Your task to perform on an android device: Open Amazon Image 0: 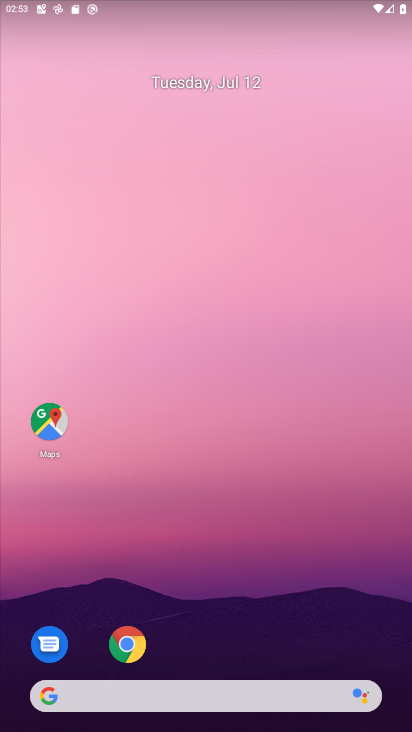
Step 0: click (135, 638)
Your task to perform on an android device: Open Amazon Image 1: 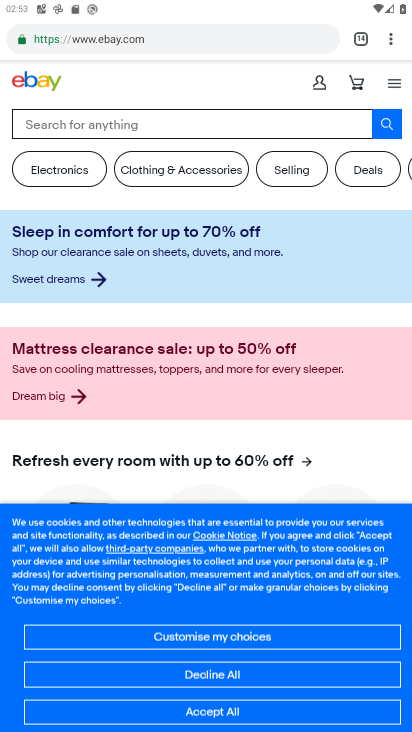
Step 1: click (357, 28)
Your task to perform on an android device: Open Amazon Image 2: 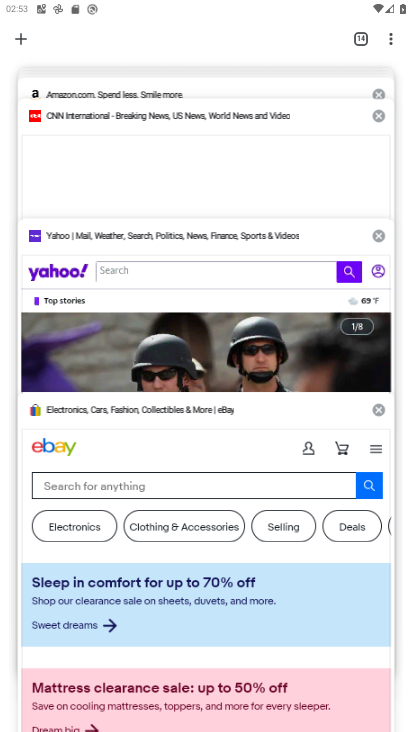
Step 2: click (56, 89)
Your task to perform on an android device: Open Amazon Image 3: 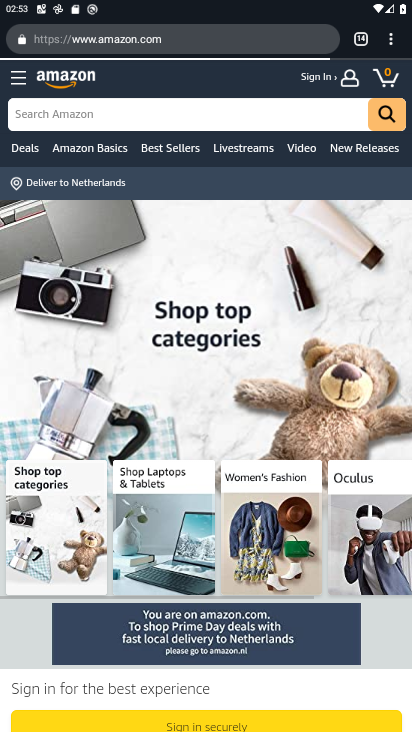
Step 3: task complete